Your task to perform on an android device: Go to ESPN.com Image 0: 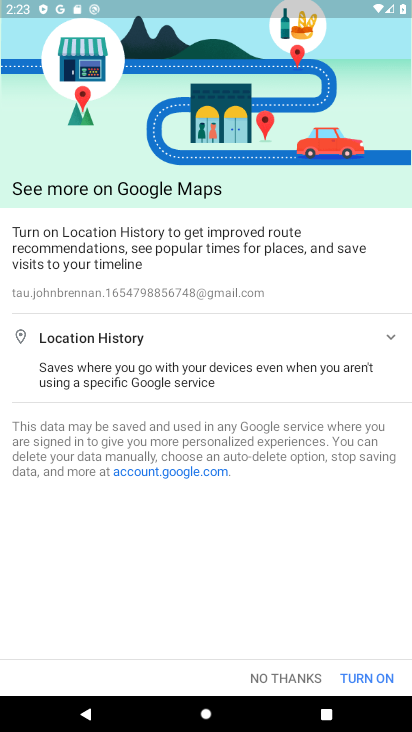
Step 0: press home button
Your task to perform on an android device: Go to ESPN.com Image 1: 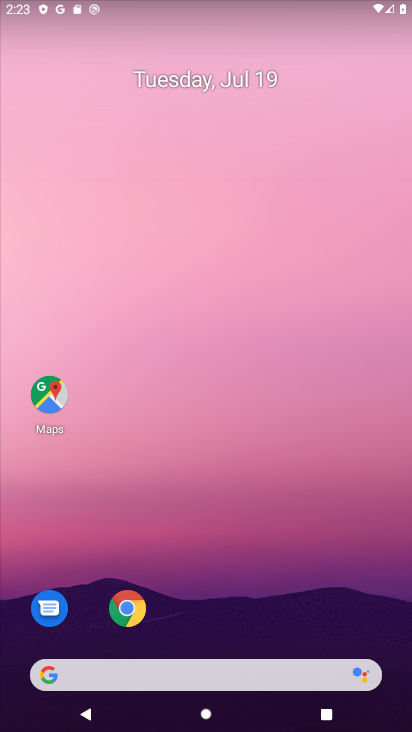
Step 1: drag from (316, 591) to (244, 58)
Your task to perform on an android device: Go to ESPN.com Image 2: 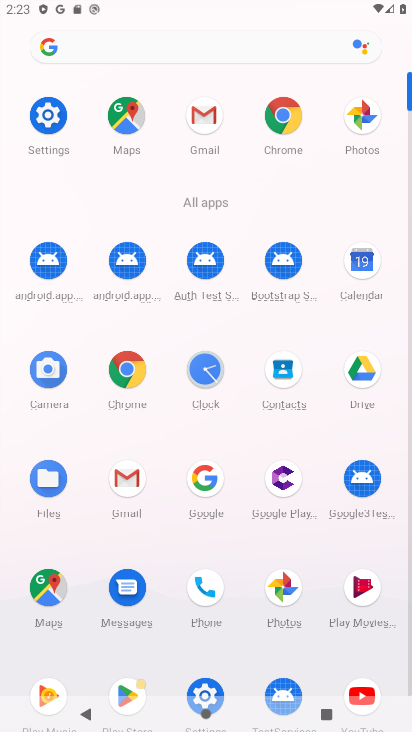
Step 2: click (282, 113)
Your task to perform on an android device: Go to ESPN.com Image 3: 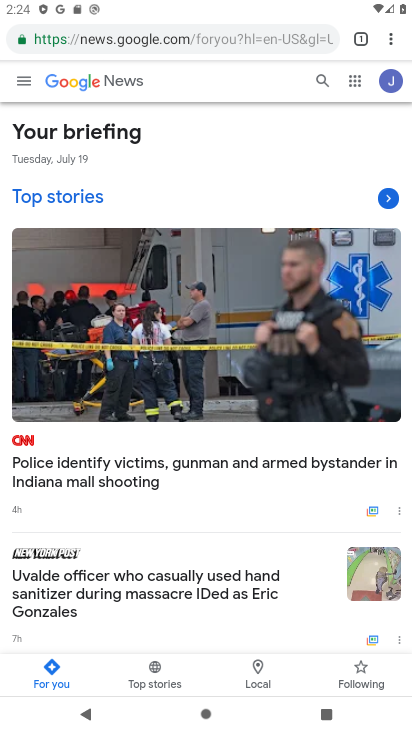
Step 3: click (185, 42)
Your task to perform on an android device: Go to ESPN.com Image 4: 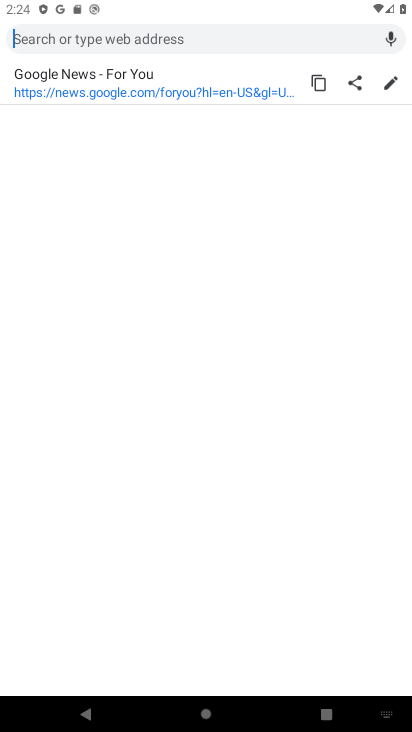
Step 4: type "espn.com"
Your task to perform on an android device: Go to ESPN.com Image 5: 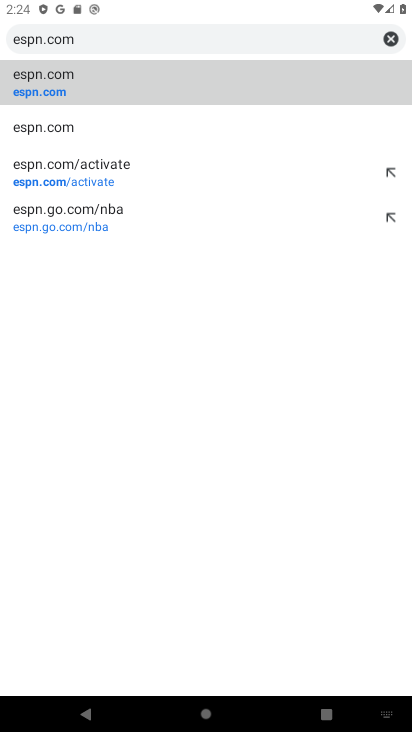
Step 5: click (53, 87)
Your task to perform on an android device: Go to ESPN.com Image 6: 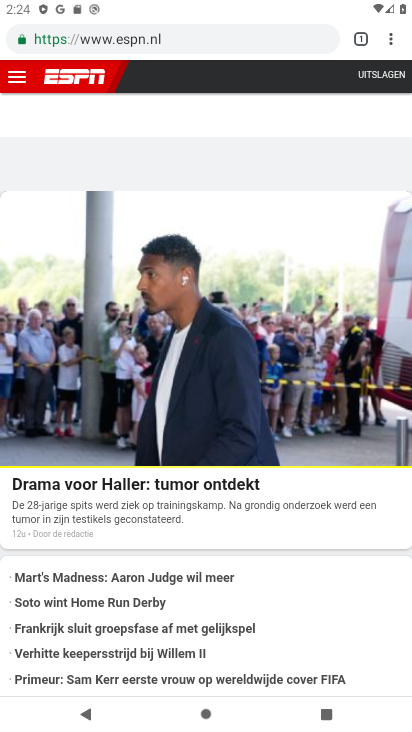
Step 6: task complete